Your task to perform on an android device: change the clock style Image 0: 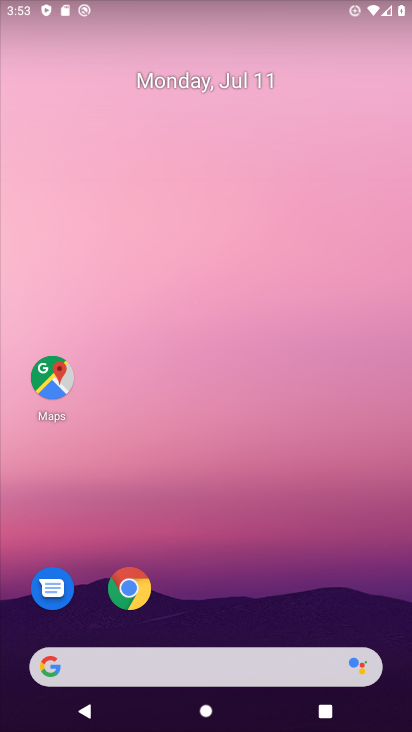
Step 0: drag from (236, 544) to (294, 26)
Your task to perform on an android device: change the clock style Image 1: 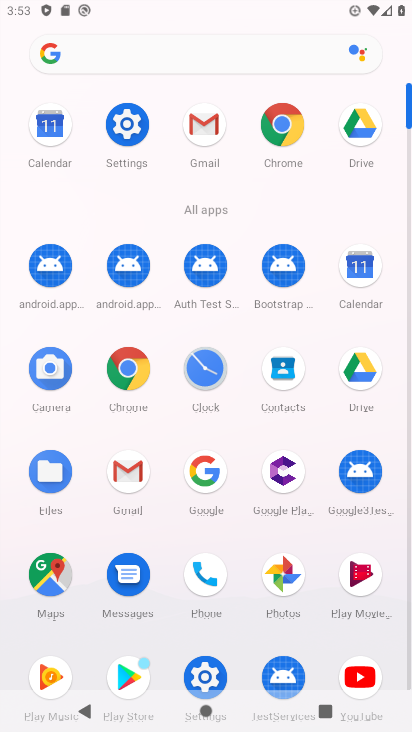
Step 1: click (201, 376)
Your task to perform on an android device: change the clock style Image 2: 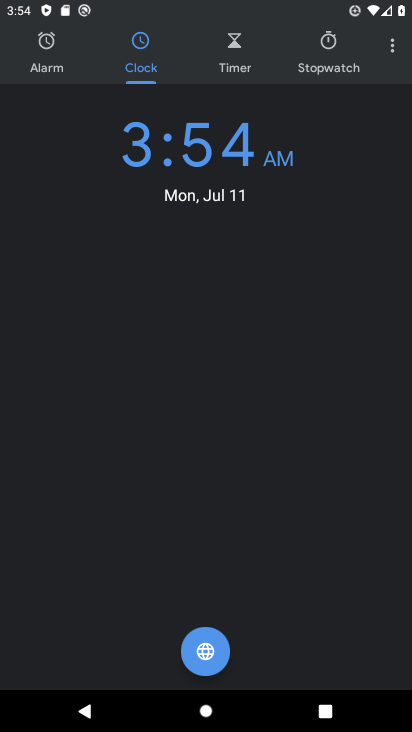
Step 2: click (395, 37)
Your task to perform on an android device: change the clock style Image 3: 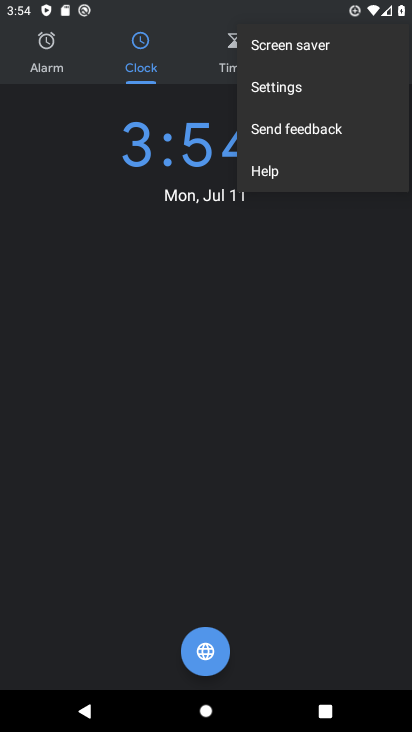
Step 3: click (304, 97)
Your task to perform on an android device: change the clock style Image 4: 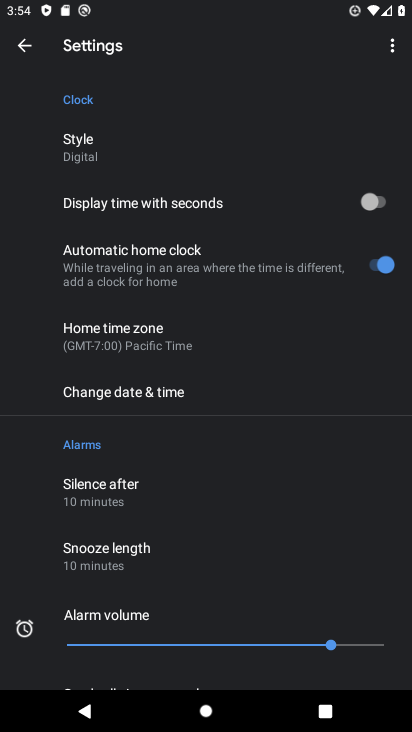
Step 4: click (93, 156)
Your task to perform on an android device: change the clock style Image 5: 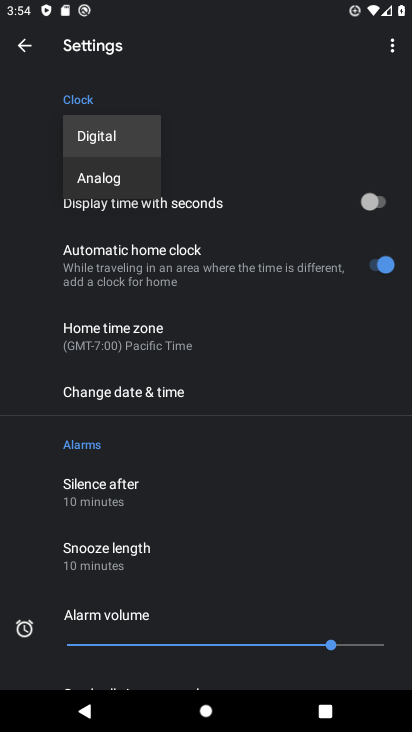
Step 5: click (107, 177)
Your task to perform on an android device: change the clock style Image 6: 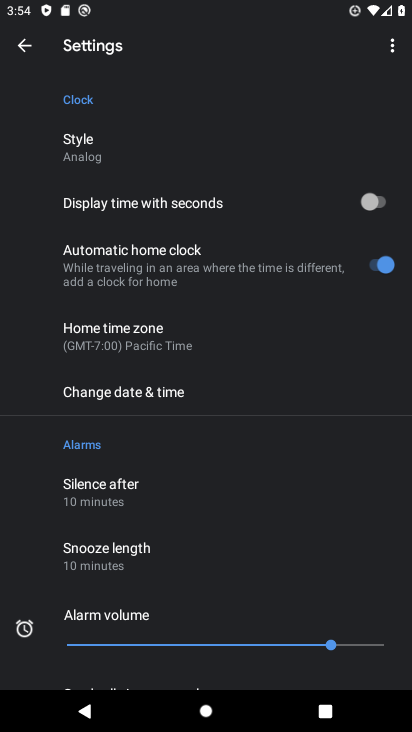
Step 6: task complete